Your task to perform on an android device: choose inbox layout in the gmail app Image 0: 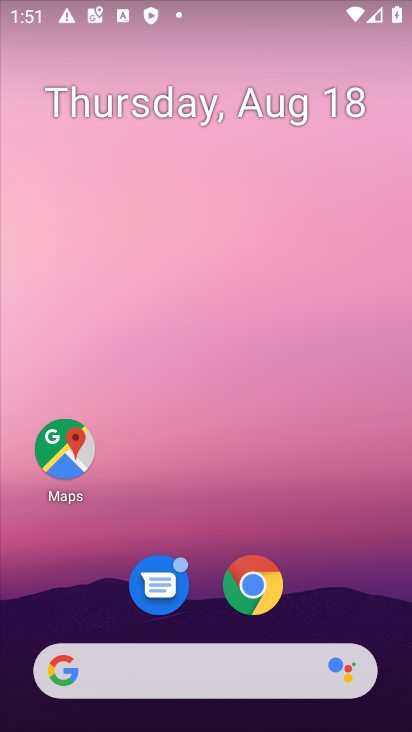
Step 0: drag from (310, 545) to (287, 1)
Your task to perform on an android device: choose inbox layout in the gmail app Image 1: 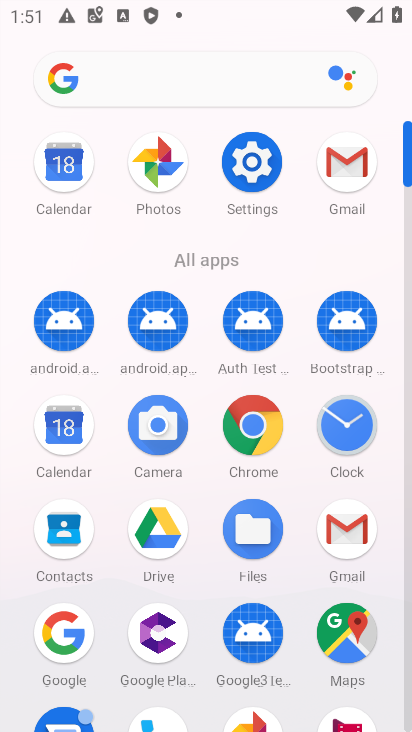
Step 1: click (346, 153)
Your task to perform on an android device: choose inbox layout in the gmail app Image 2: 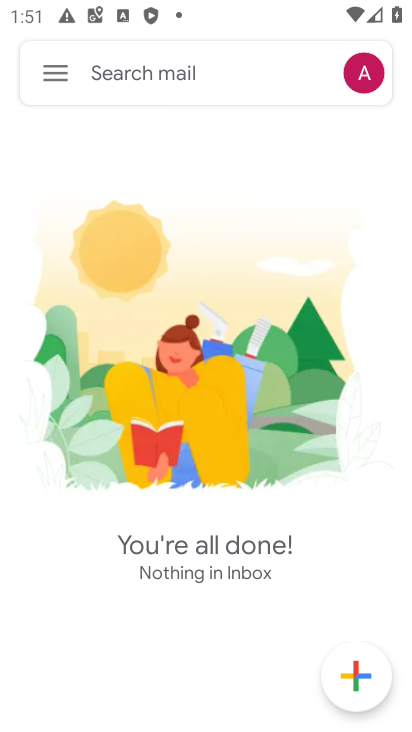
Step 2: click (56, 70)
Your task to perform on an android device: choose inbox layout in the gmail app Image 3: 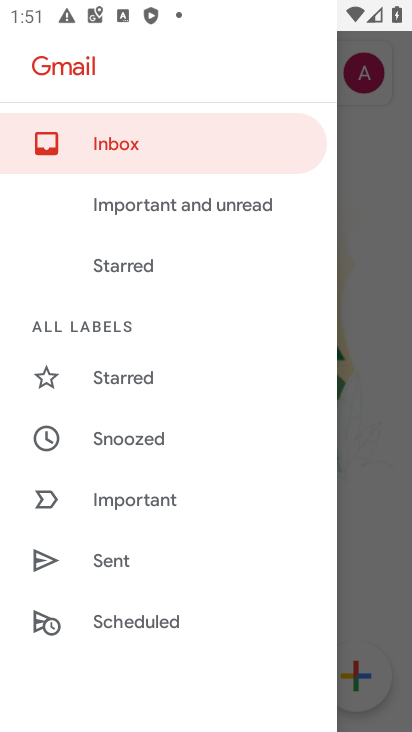
Step 3: drag from (183, 486) to (189, 84)
Your task to perform on an android device: choose inbox layout in the gmail app Image 4: 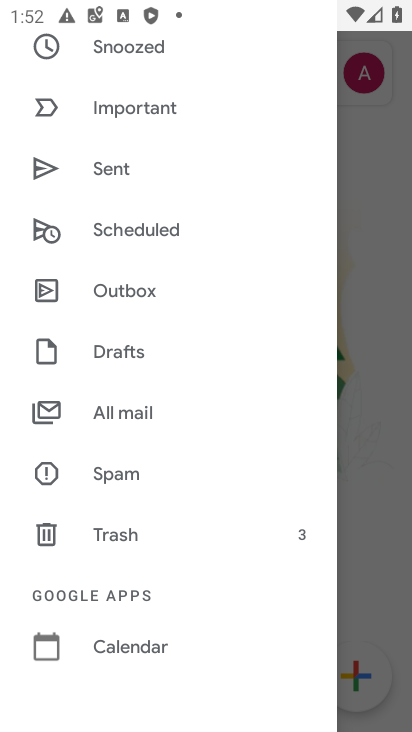
Step 4: drag from (161, 338) to (171, 15)
Your task to perform on an android device: choose inbox layout in the gmail app Image 5: 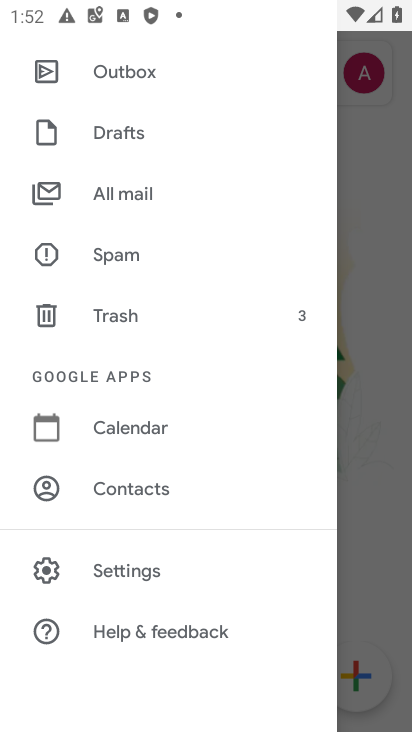
Step 5: click (140, 566)
Your task to perform on an android device: choose inbox layout in the gmail app Image 6: 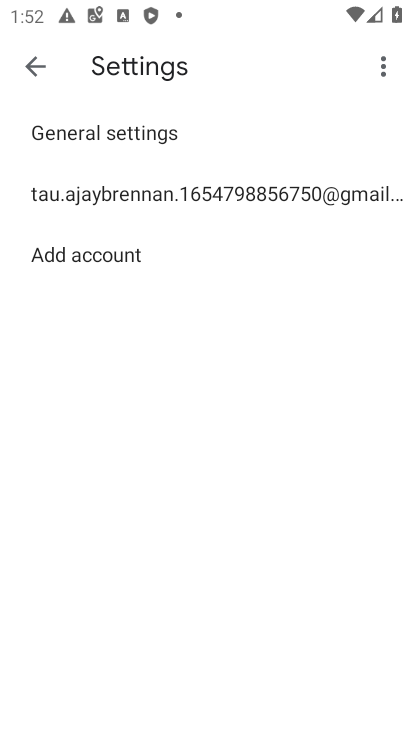
Step 6: click (242, 189)
Your task to perform on an android device: choose inbox layout in the gmail app Image 7: 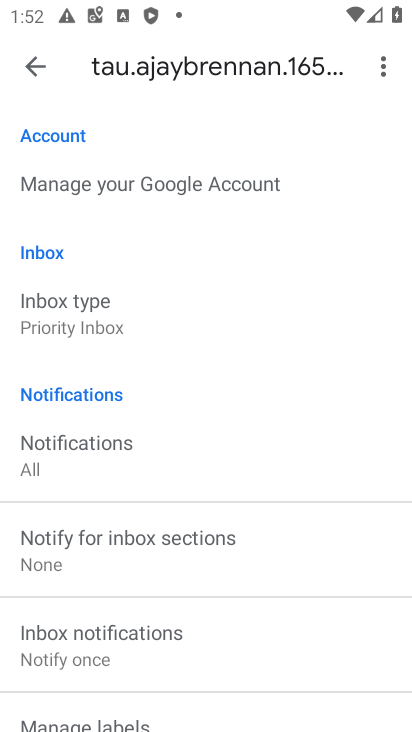
Step 7: click (104, 311)
Your task to perform on an android device: choose inbox layout in the gmail app Image 8: 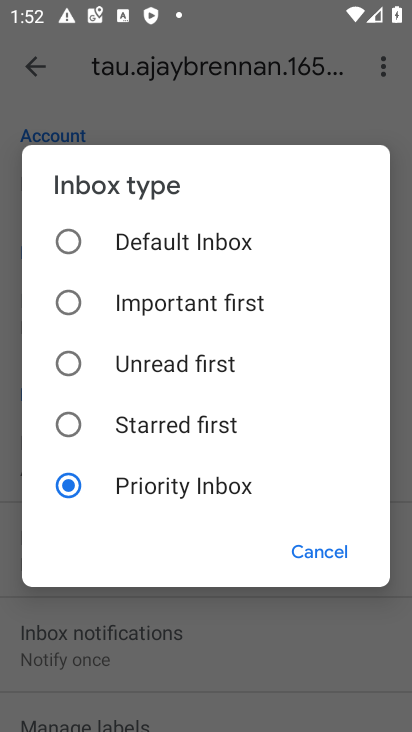
Step 8: click (77, 232)
Your task to perform on an android device: choose inbox layout in the gmail app Image 9: 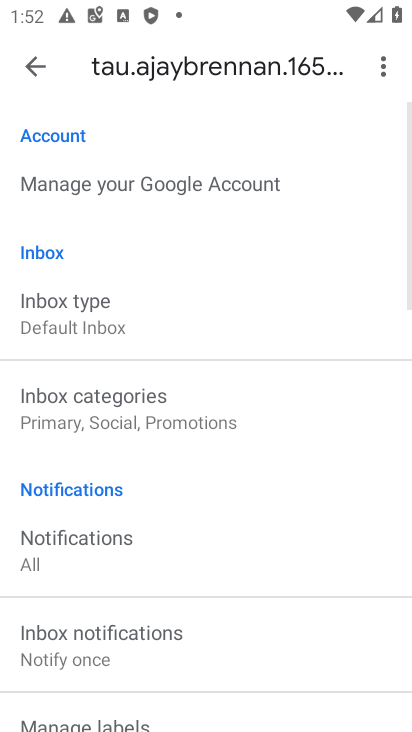
Step 9: task complete